Your task to perform on an android device: toggle notification dots Image 0: 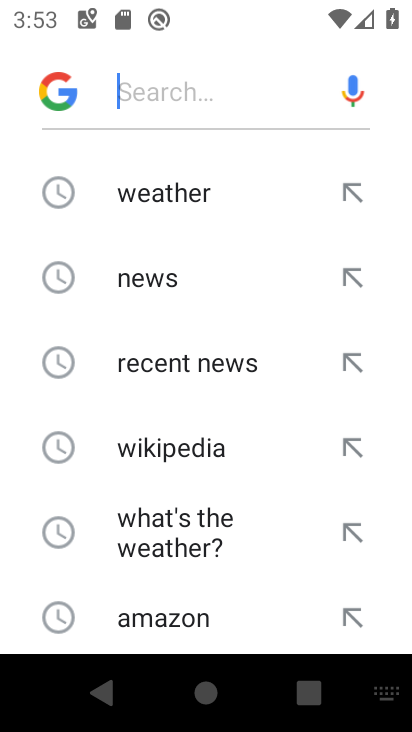
Step 0: press home button
Your task to perform on an android device: toggle notification dots Image 1: 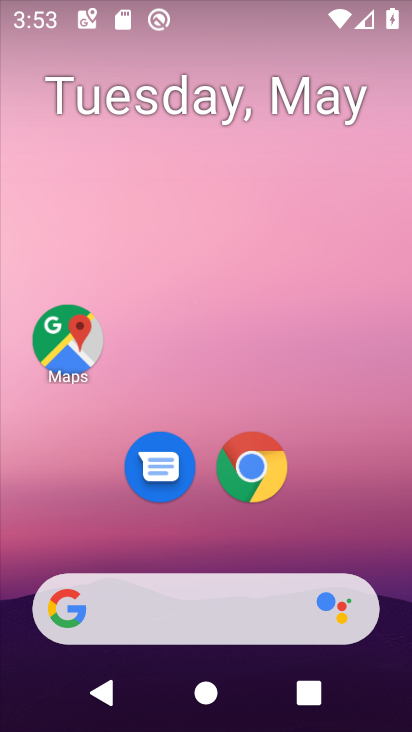
Step 1: drag from (318, 532) to (245, 15)
Your task to perform on an android device: toggle notification dots Image 2: 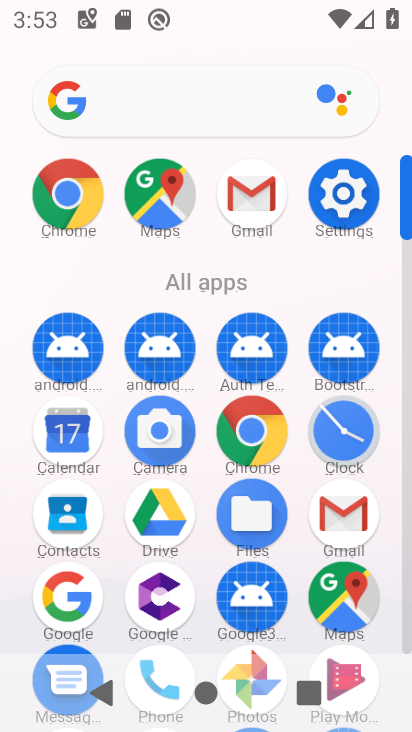
Step 2: click (347, 234)
Your task to perform on an android device: toggle notification dots Image 3: 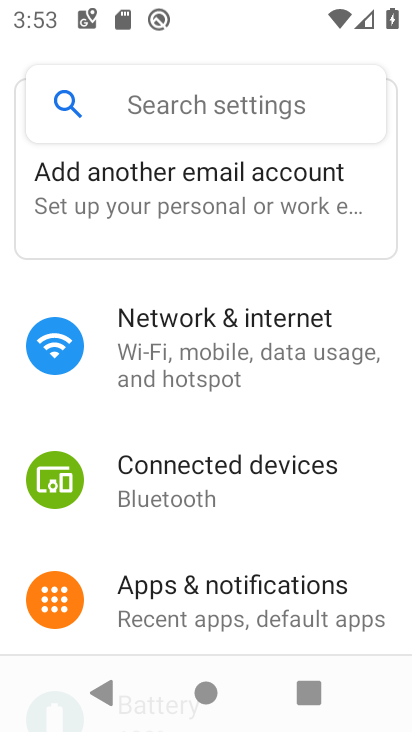
Step 3: click (270, 614)
Your task to perform on an android device: toggle notification dots Image 4: 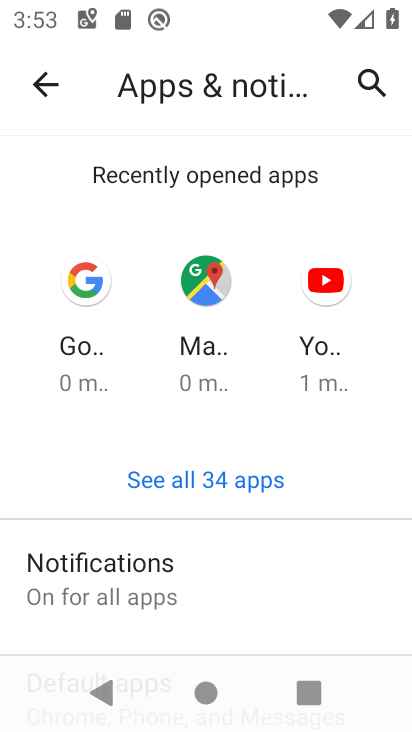
Step 4: click (129, 586)
Your task to perform on an android device: toggle notification dots Image 5: 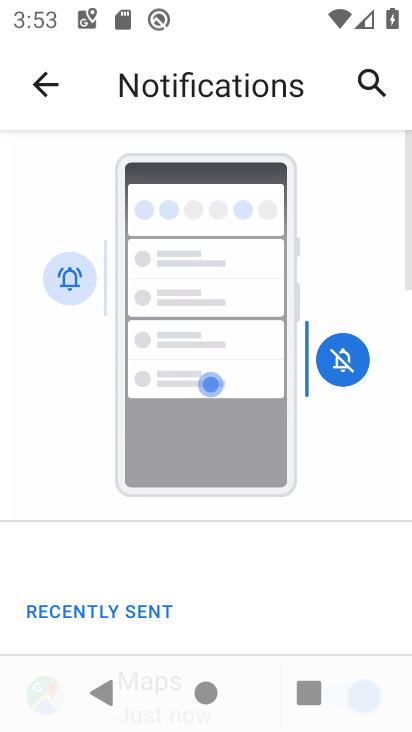
Step 5: drag from (188, 615) to (195, 258)
Your task to perform on an android device: toggle notification dots Image 6: 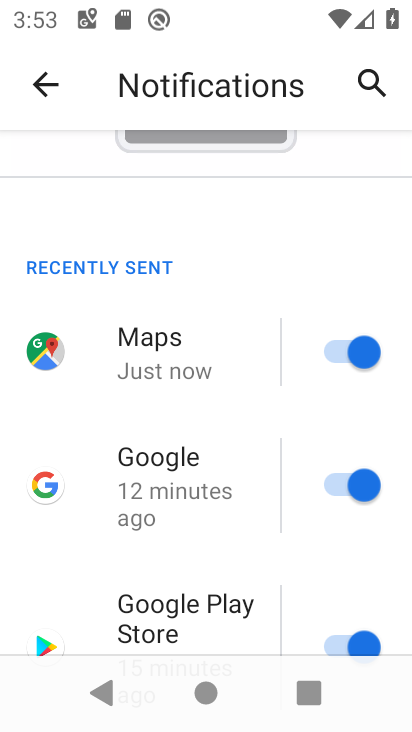
Step 6: drag from (207, 582) to (207, 214)
Your task to perform on an android device: toggle notification dots Image 7: 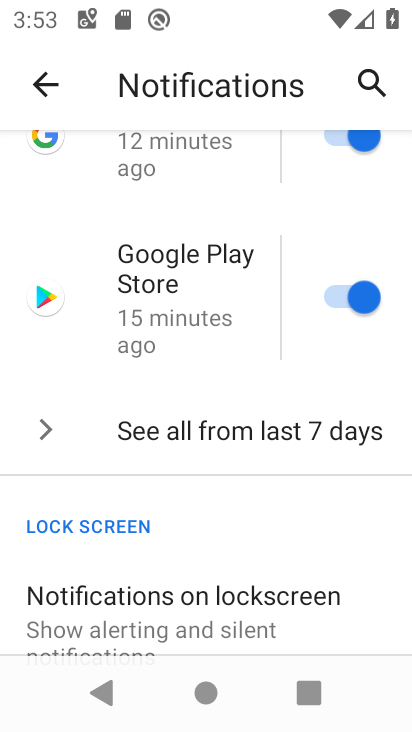
Step 7: drag from (218, 425) to (214, 295)
Your task to perform on an android device: toggle notification dots Image 8: 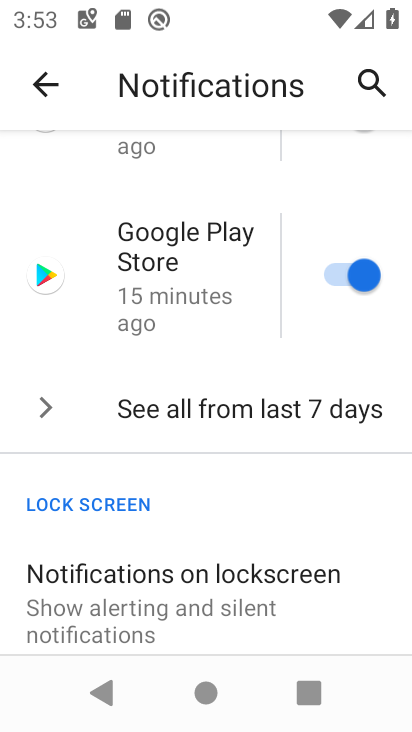
Step 8: drag from (206, 602) to (210, 345)
Your task to perform on an android device: toggle notification dots Image 9: 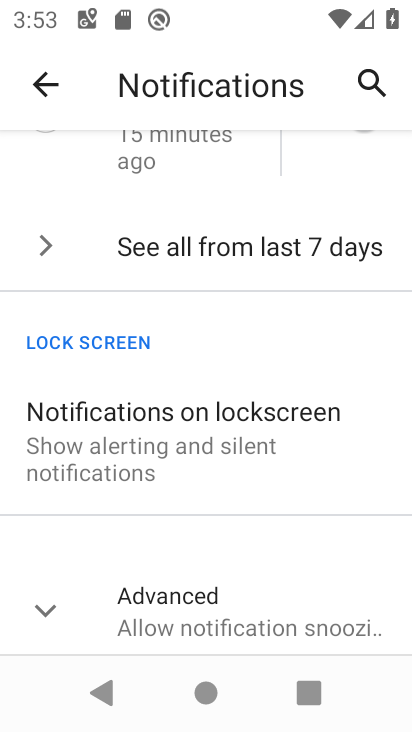
Step 9: drag from (191, 609) to (191, 250)
Your task to perform on an android device: toggle notification dots Image 10: 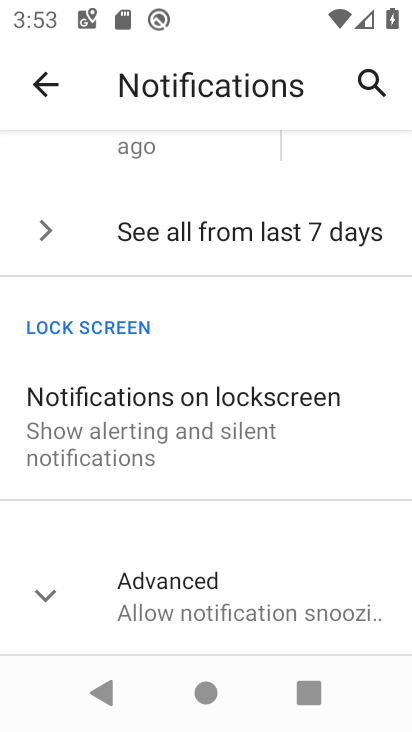
Step 10: click (169, 585)
Your task to perform on an android device: toggle notification dots Image 11: 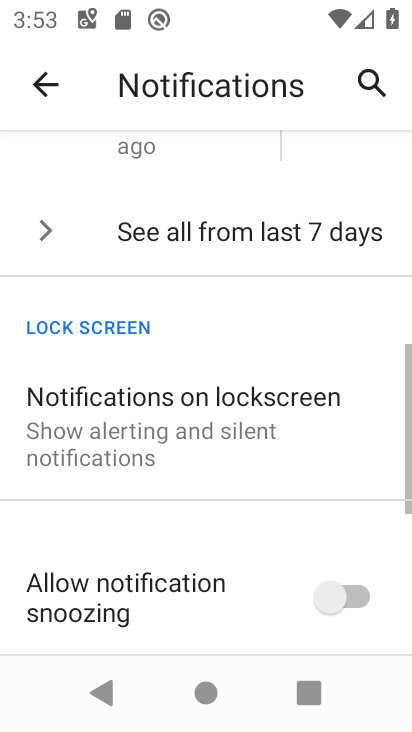
Step 11: drag from (206, 609) to (255, 315)
Your task to perform on an android device: toggle notification dots Image 12: 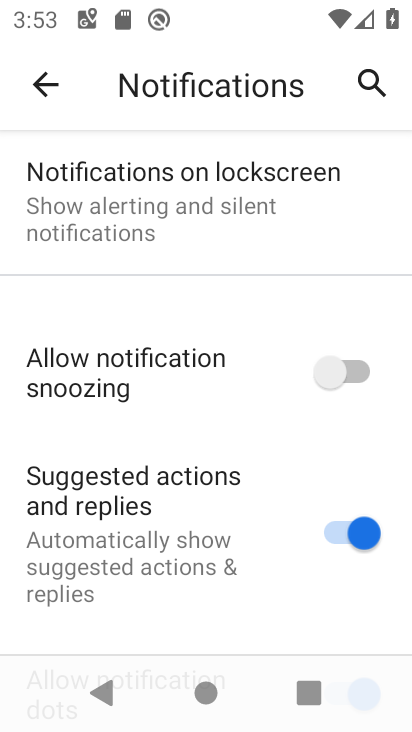
Step 12: drag from (262, 602) to (228, 289)
Your task to perform on an android device: toggle notification dots Image 13: 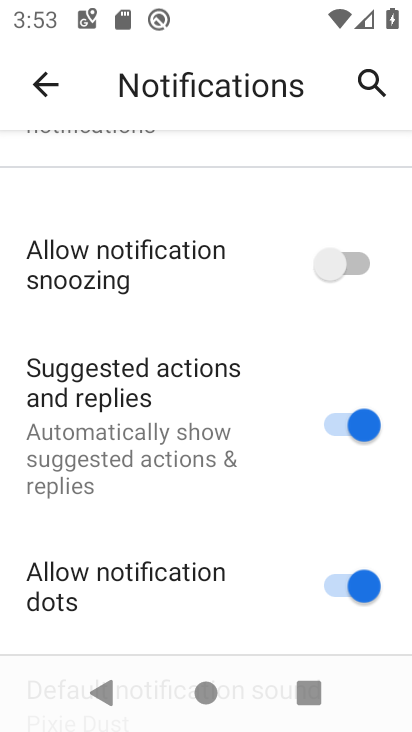
Step 13: click (324, 597)
Your task to perform on an android device: toggle notification dots Image 14: 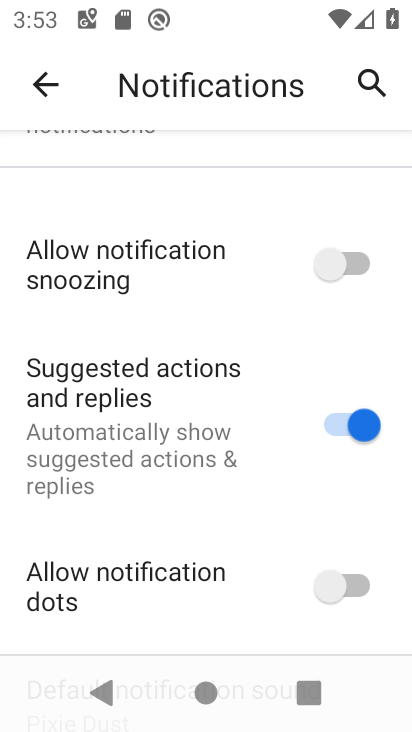
Step 14: task complete